Your task to perform on an android device: Go to notification settings Image 0: 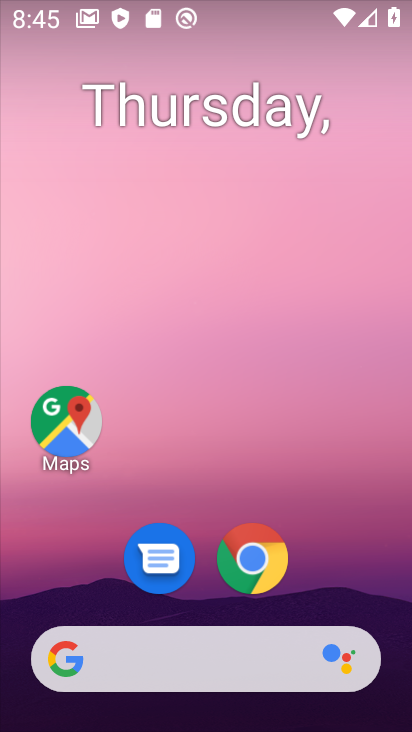
Step 0: drag from (383, 615) to (300, 60)
Your task to perform on an android device: Go to notification settings Image 1: 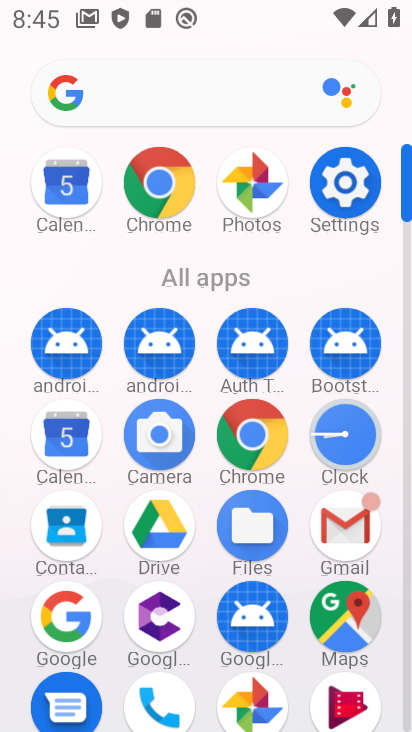
Step 1: click (406, 695)
Your task to perform on an android device: Go to notification settings Image 2: 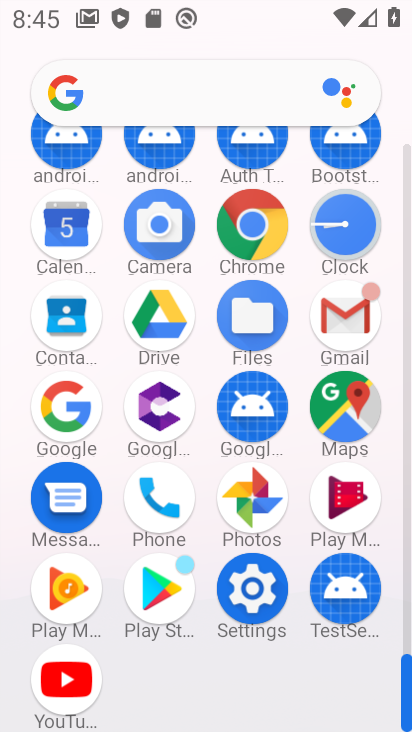
Step 2: click (256, 586)
Your task to perform on an android device: Go to notification settings Image 3: 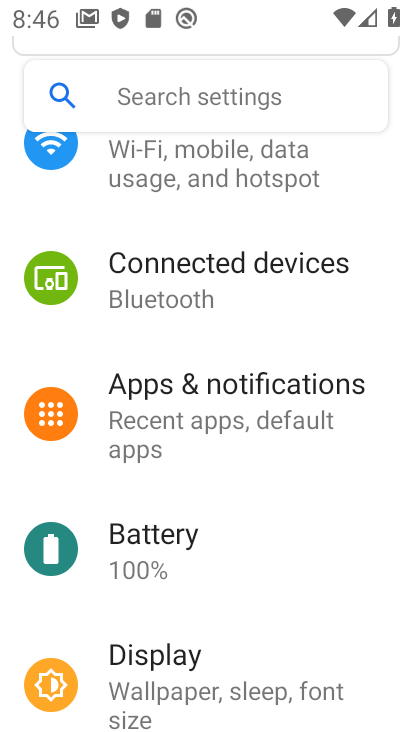
Step 3: click (151, 393)
Your task to perform on an android device: Go to notification settings Image 4: 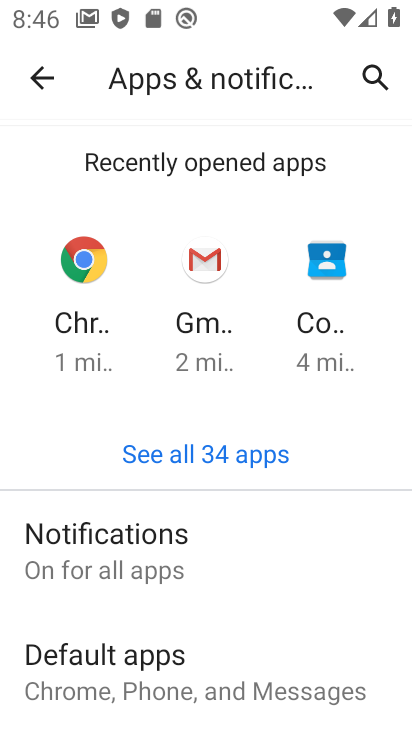
Step 4: click (123, 535)
Your task to perform on an android device: Go to notification settings Image 5: 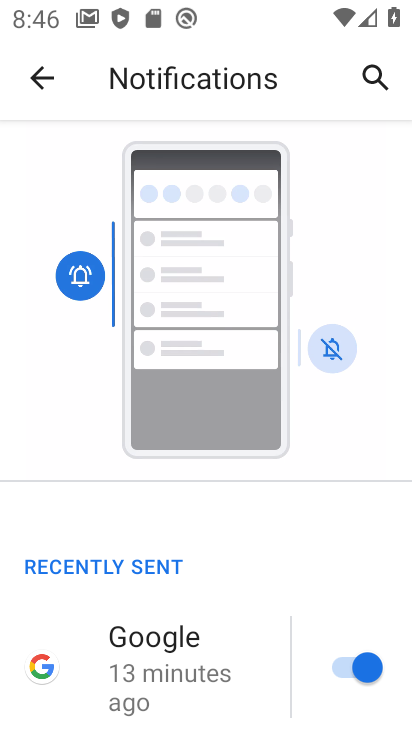
Step 5: drag from (291, 652) to (235, 193)
Your task to perform on an android device: Go to notification settings Image 6: 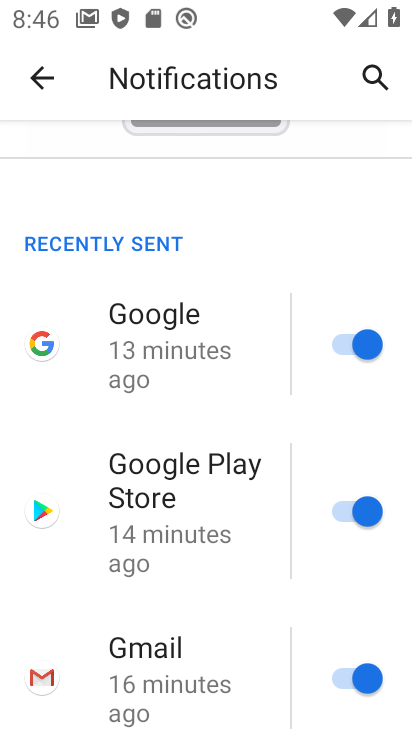
Step 6: drag from (283, 673) to (248, 169)
Your task to perform on an android device: Go to notification settings Image 7: 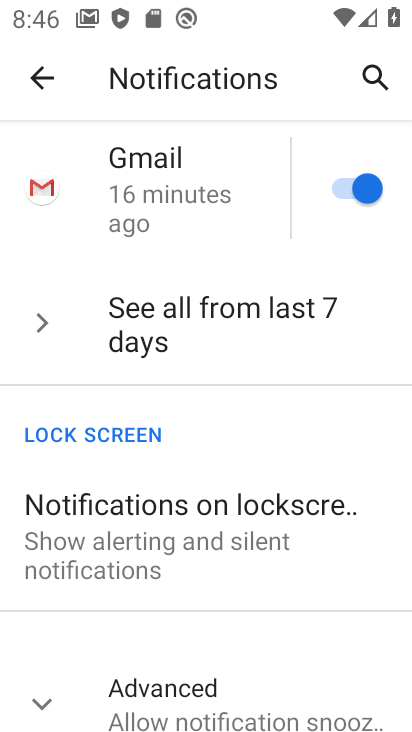
Step 7: drag from (254, 626) to (225, 222)
Your task to perform on an android device: Go to notification settings Image 8: 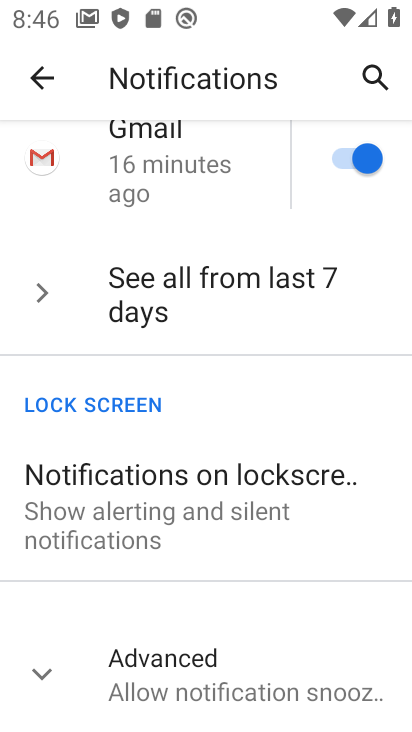
Step 8: click (41, 668)
Your task to perform on an android device: Go to notification settings Image 9: 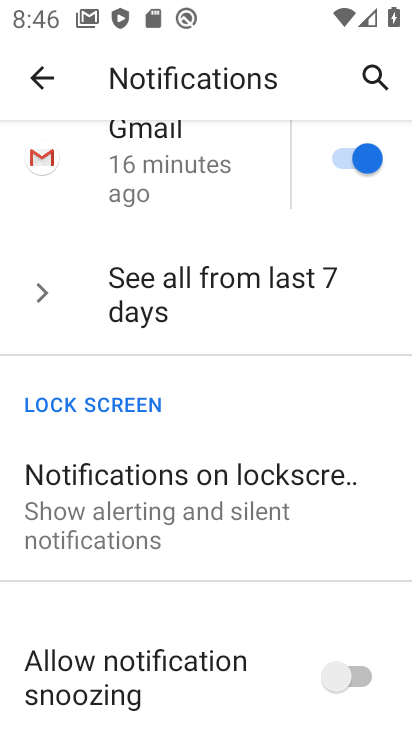
Step 9: task complete